Your task to perform on an android device: open the mobile data screen to see how much data has been used Image 0: 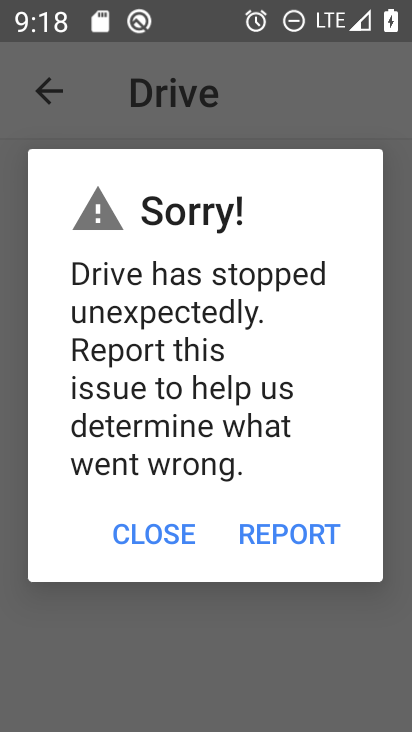
Step 0: press home button
Your task to perform on an android device: open the mobile data screen to see how much data has been used Image 1: 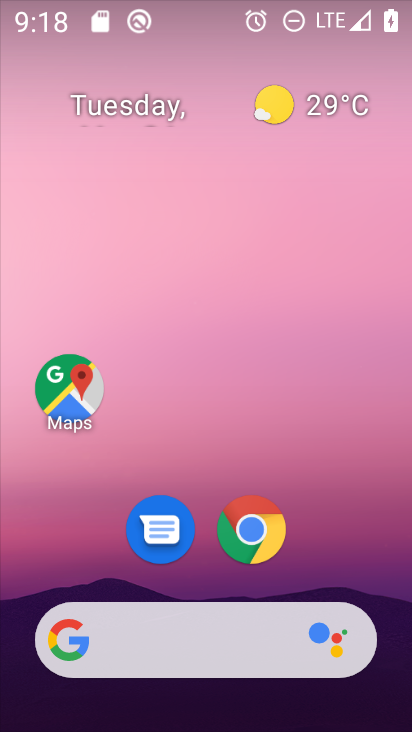
Step 1: drag from (380, 675) to (304, 45)
Your task to perform on an android device: open the mobile data screen to see how much data has been used Image 2: 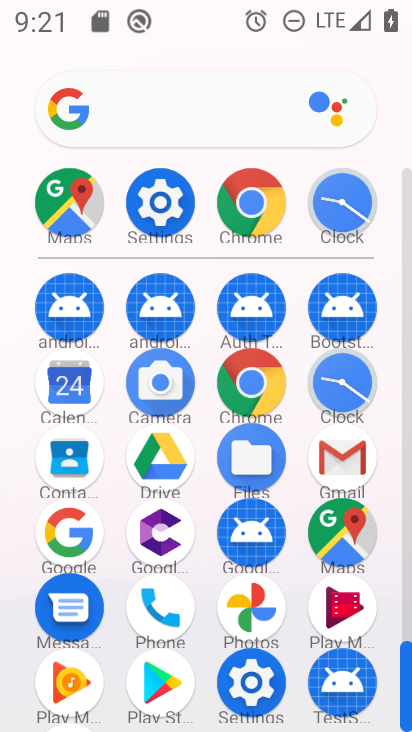
Step 2: click (168, 227)
Your task to perform on an android device: open the mobile data screen to see how much data has been used Image 3: 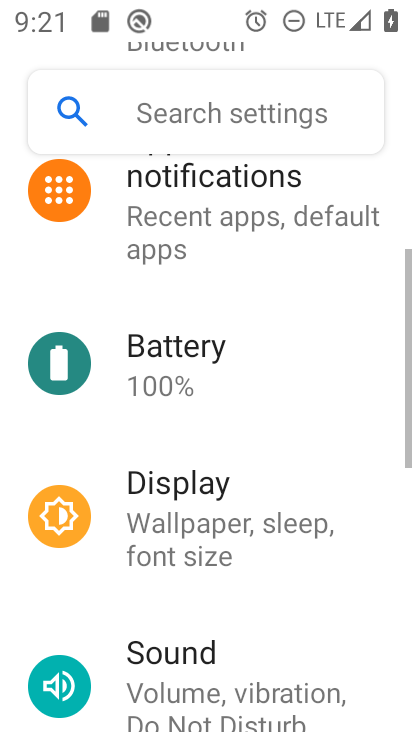
Step 3: drag from (266, 222) to (191, 581)
Your task to perform on an android device: open the mobile data screen to see how much data has been used Image 4: 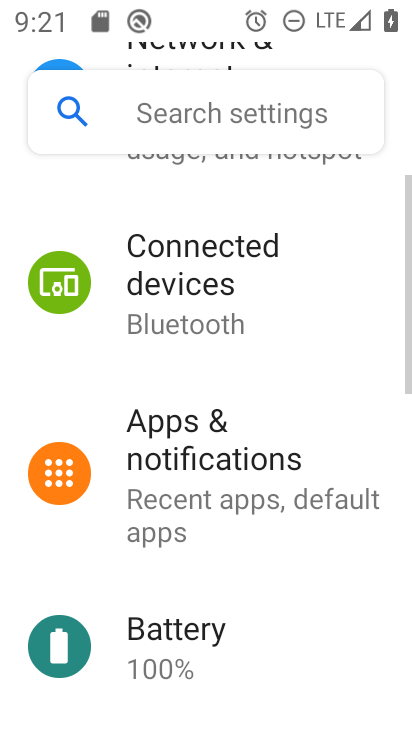
Step 4: drag from (186, 243) to (182, 720)
Your task to perform on an android device: open the mobile data screen to see how much data has been used Image 5: 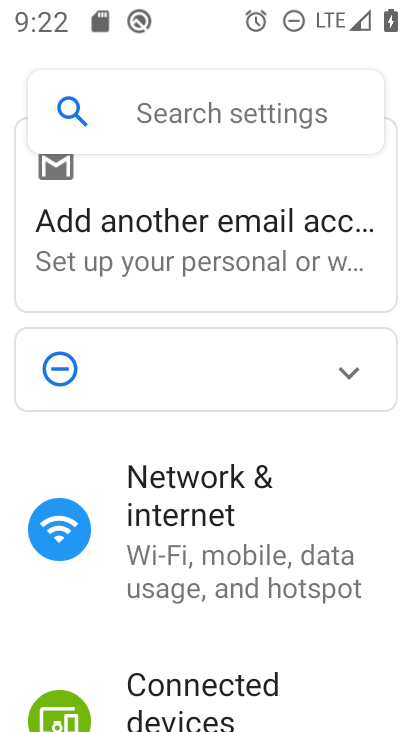
Step 5: click (226, 545)
Your task to perform on an android device: open the mobile data screen to see how much data has been used Image 6: 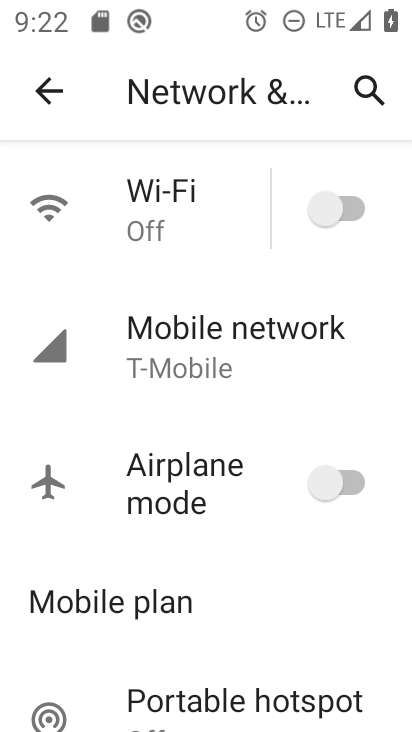
Step 6: click (210, 344)
Your task to perform on an android device: open the mobile data screen to see how much data has been used Image 7: 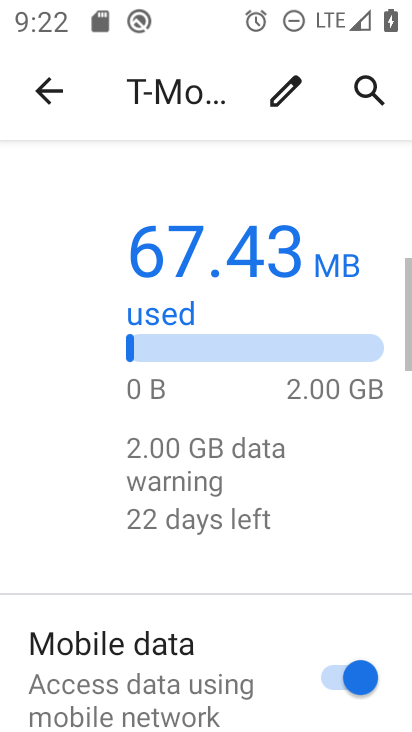
Step 7: drag from (183, 677) to (190, 108)
Your task to perform on an android device: open the mobile data screen to see how much data has been used Image 8: 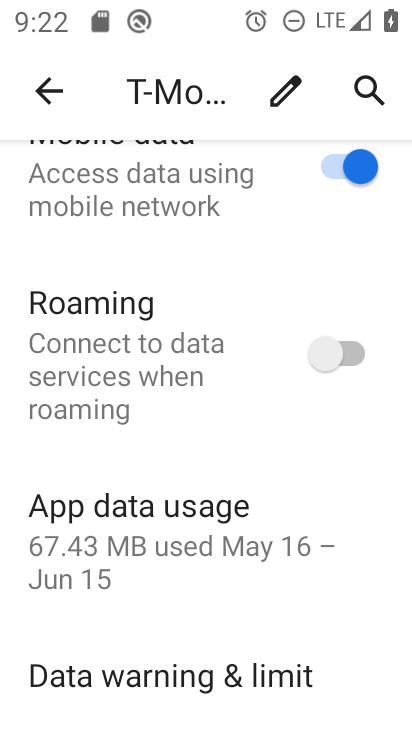
Step 8: click (186, 524)
Your task to perform on an android device: open the mobile data screen to see how much data has been used Image 9: 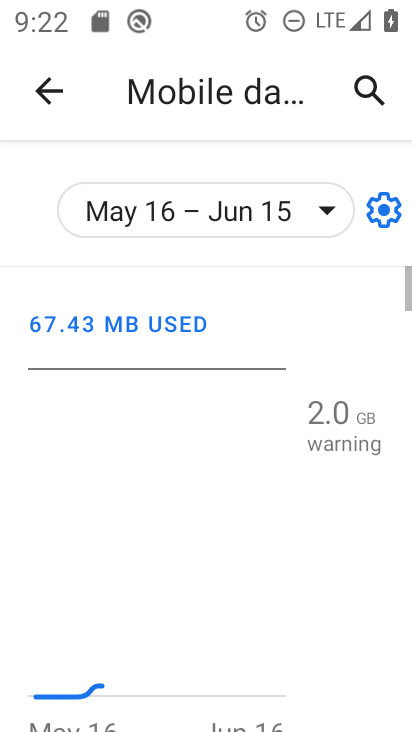
Step 9: task complete